Your task to perform on an android device: open a bookmark in the chrome app Image 0: 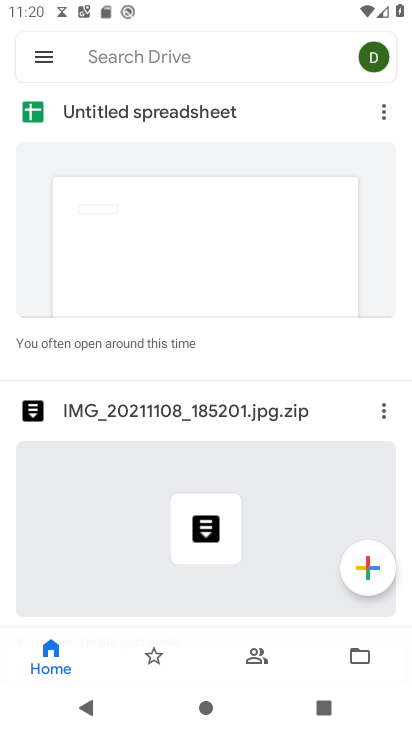
Step 0: press home button
Your task to perform on an android device: open a bookmark in the chrome app Image 1: 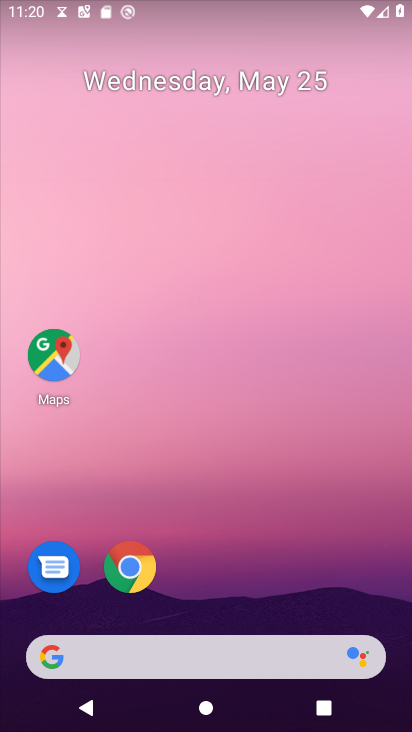
Step 1: click (133, 578)
Your task to perform on an android device: open a bookmark in the chrome app Image 2: 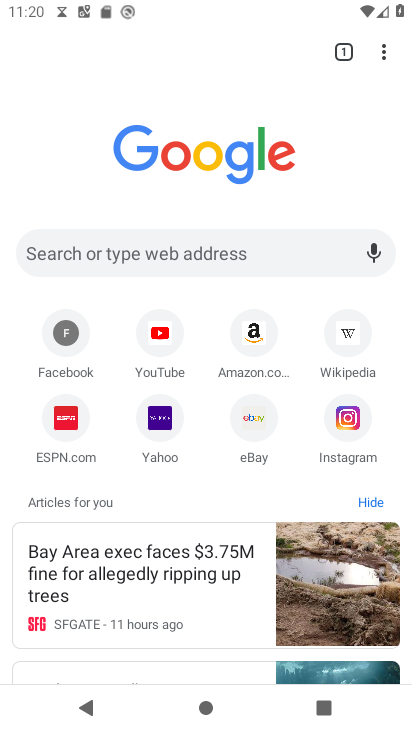
Step 2: click (390, 45)
Your task to perform on an android device: open a bookmark in the chrome app Image 3: 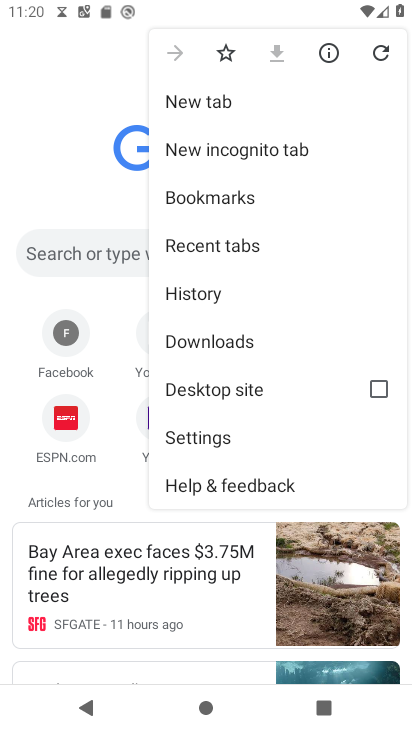
Step 3: click (212, 194)
Your task to perform on an android device: open a bookmark in the chrome app Image 4: 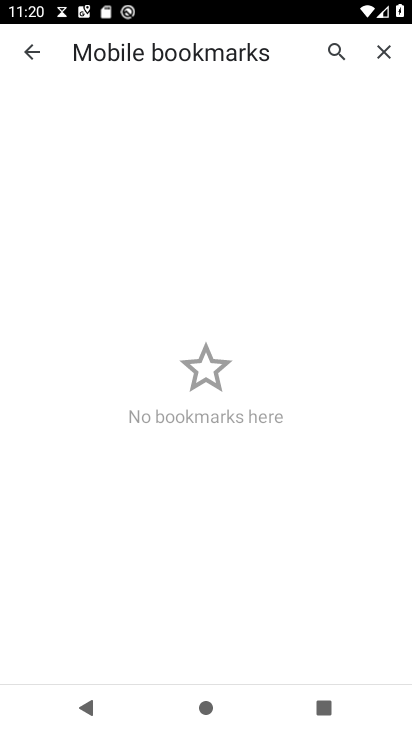
Step 4: task complete